Your task to perform on an android device: refresh tabs in the chrome app Image 0: 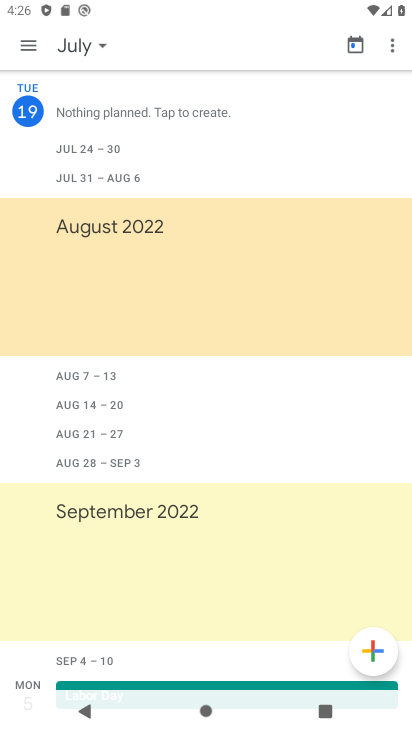
Step 0: press home button
Your task to perform on an android device: refresh tabs in the chrome app Image 1: 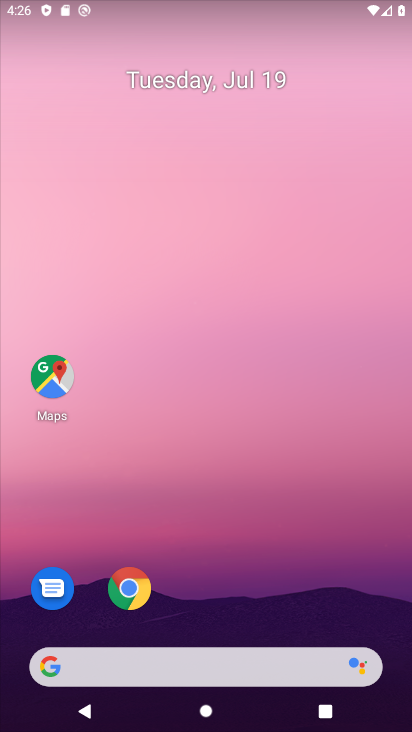
Step 1: click (126, 588)
Your task to perform on an android device: refresh tabs in the chrome app Image 2: 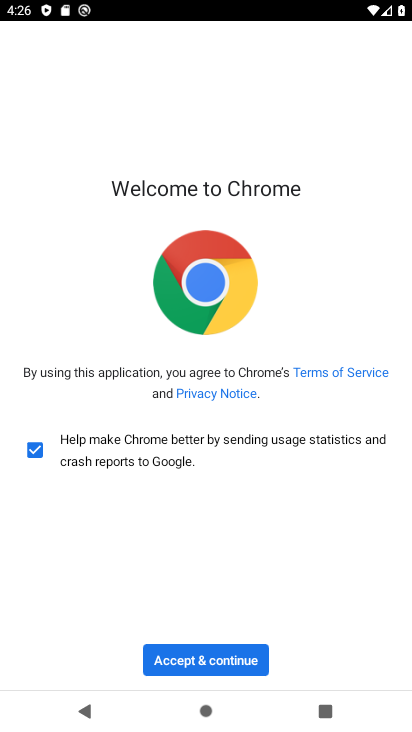
Step 2: click (198, 652)
Your task to perform on an android device: refresh tabs in the chrome app Image 3: 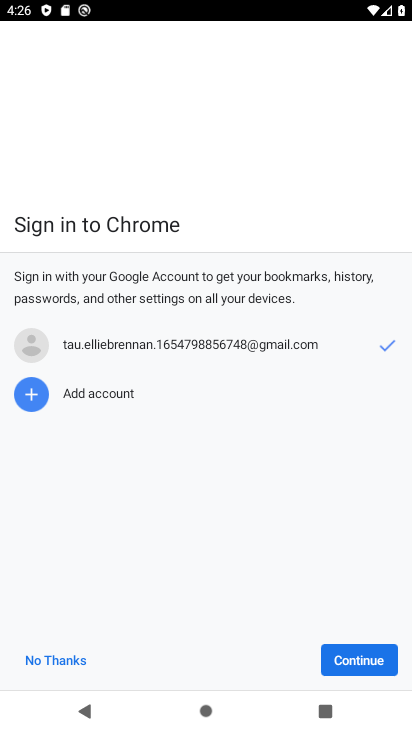
Step 3: click (358, 664)
Your task to perform on an android device: refresh tabs in the chrome app Image 4: 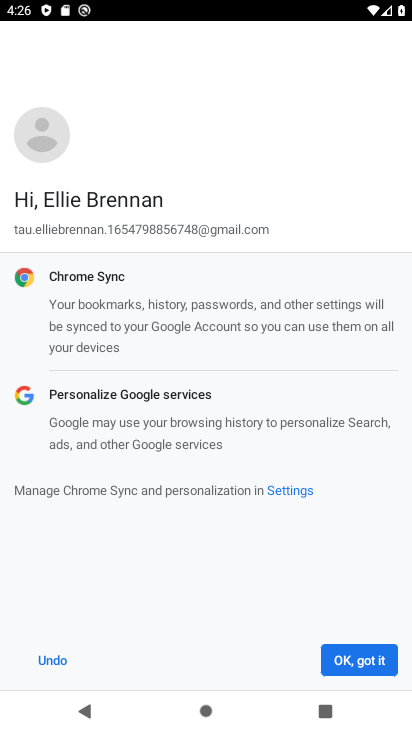
Step 4: click (358, 664)
Your task to perform on an android device: refresh tabs in the chrome app Image 5: 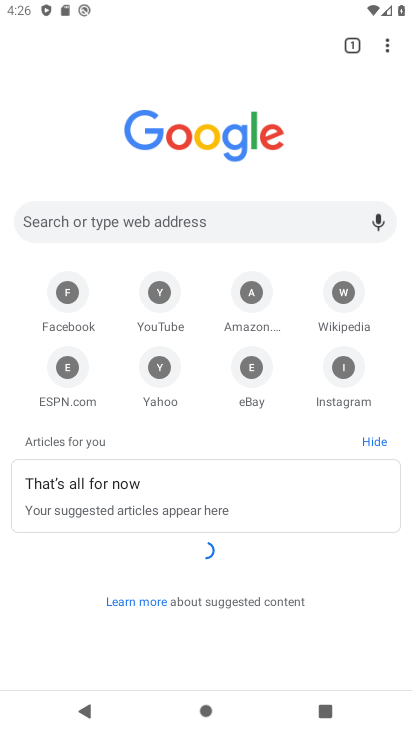
Step 5: click (384, 49)
Your task to perform on an android device: refresh tabs in the chrome app Image 6: 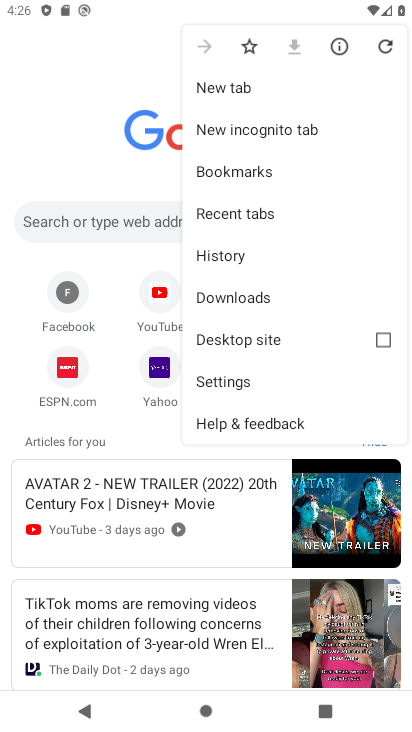
Step 6: click (388, 44)
Your task to perform on an android device: refresh tabs in the chrome app Image 7: 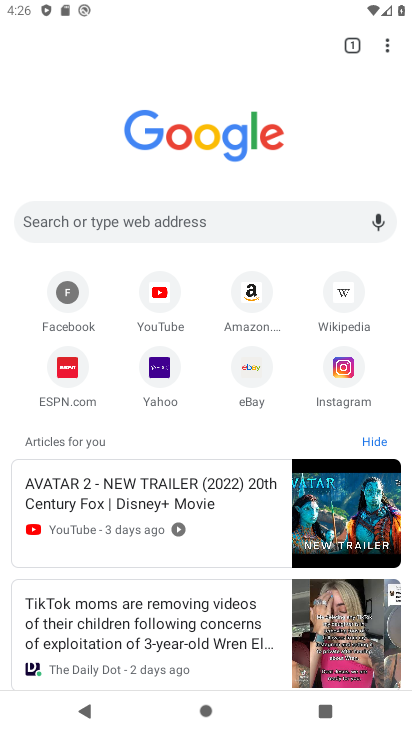
Step 7: task complete